Your task to perform on an android device: Open Android settings Image 0: 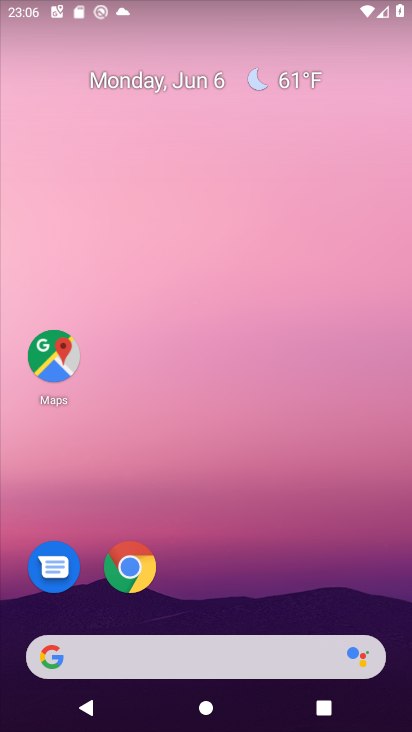
Step 0: drag from (228, 726) to (229, 5)
Your task to perform on an android device: Open Android settings Image 1: 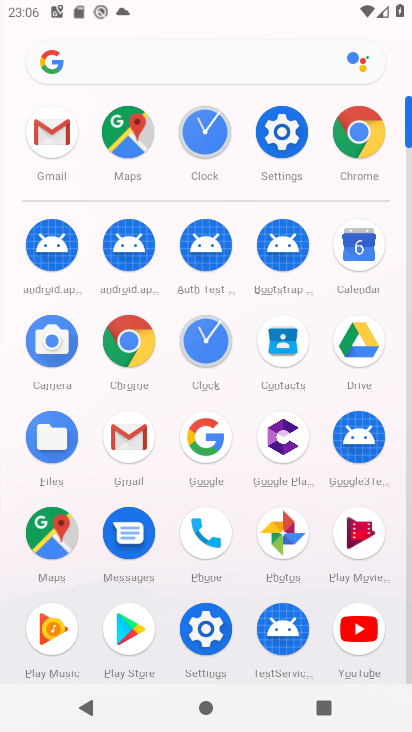
Step 1: click (283, 136)
Your task to perform on an android device: Open Android settings Image 2: 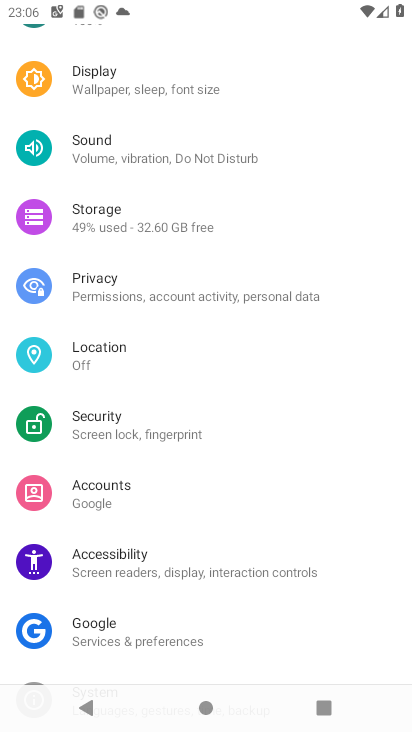
Step 2: task complete